Your task to perform on an android device: Go to CNN.com Image 0: 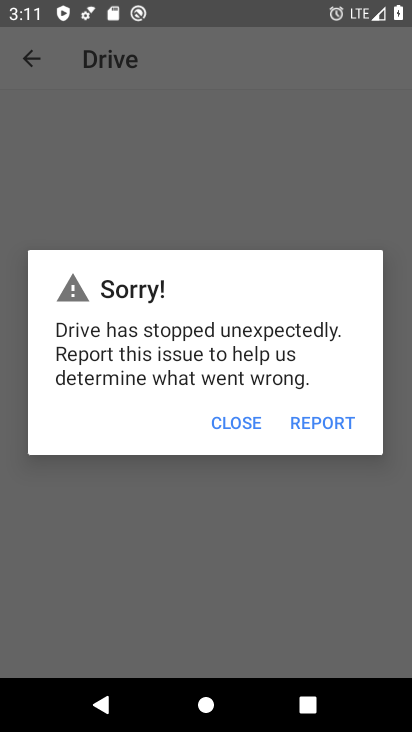
Step 0: press home button
Your task to perform on an android device: Go to CNN.com Image 1: 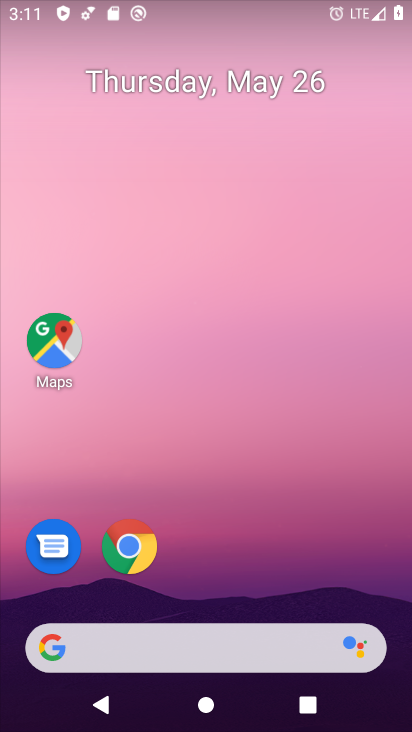
Step 1: click (126, 580)
Your task to perform on an android device: Go to CNN.com Image 2: 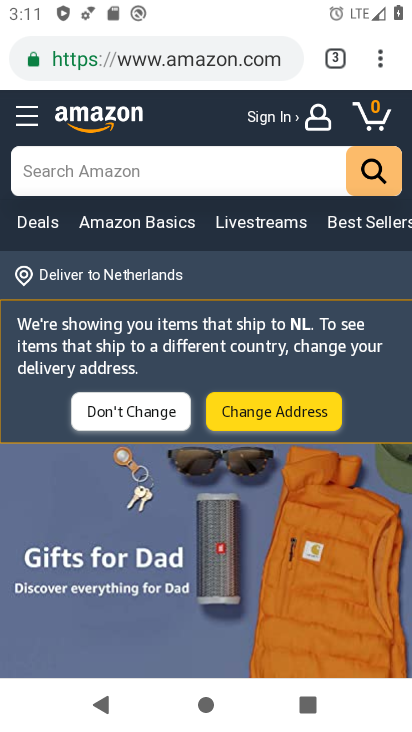
Step 2: click (336, 51)
Your task to perform on an android device: Go to CNN.com Image 3: 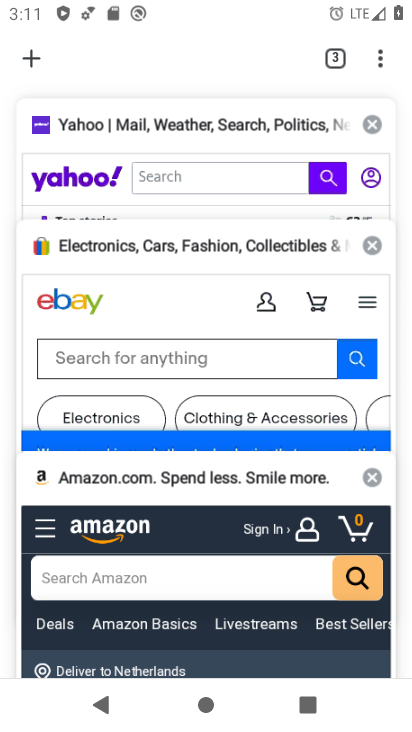
Step 3: click (30, 52)
Your task to perform on an android device: Go to CNN.com Image 4: 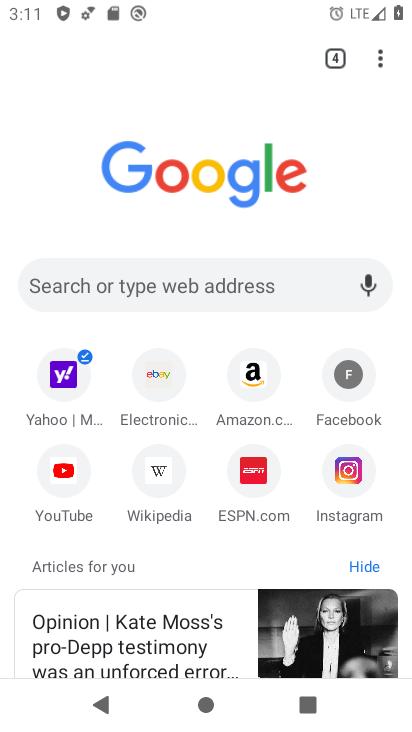
Step 4: click (155, 289)
Your task to perform on an android device: Go to CNN.com Image 5: 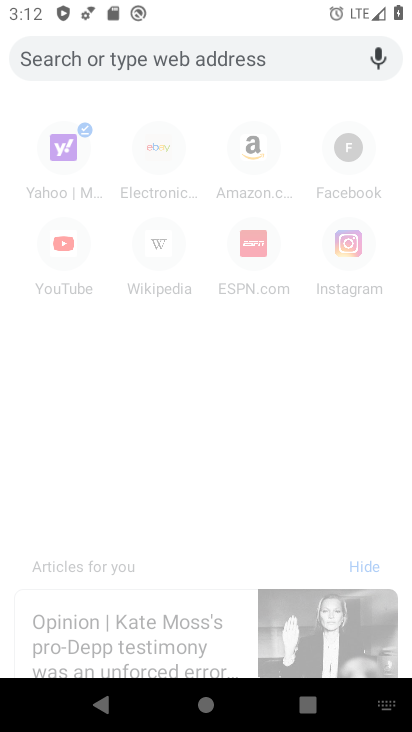
Step 5: type "cnn.com"
Your task to perform on an android device: Go to CNN.com Image 6: 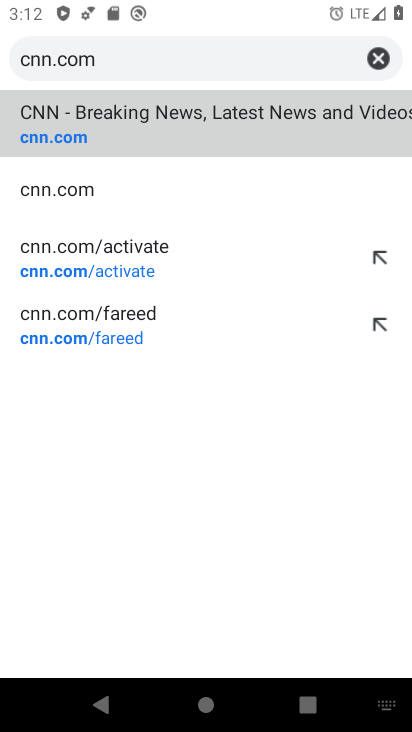
Step 6: click (75, 136)
Your task to perform on an android device: Go to CNN.com Image 7: 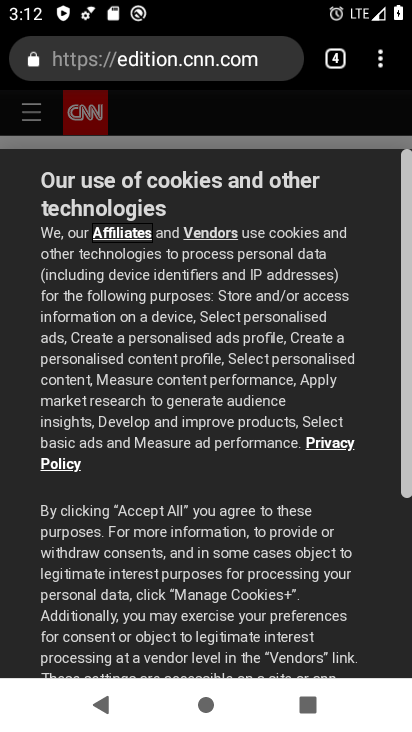
Step 7: task complete